Your task to perform on an android device: turn off javascript in the chrome app Image 0: 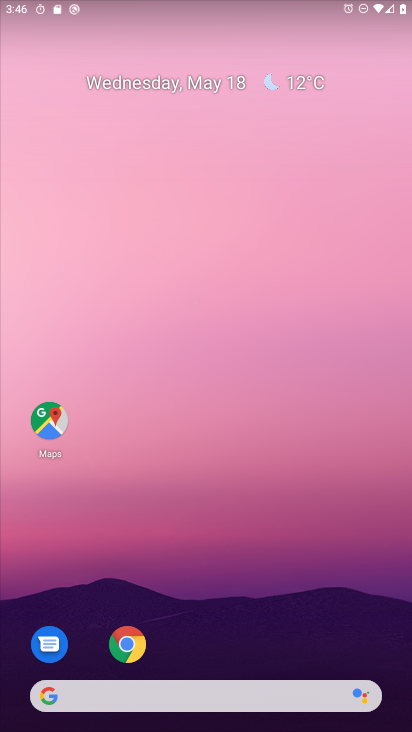
Step 0: click (123, 646)
Your task to perform on an android device: turn off javascript in the chrome app Image 1: 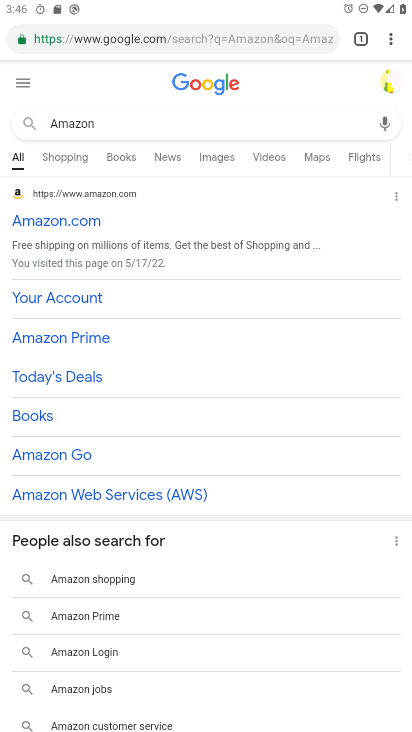
Step 1: click (390, 39)
Your task to perform on an android device: turn off javascript in the chrome app Image 2: 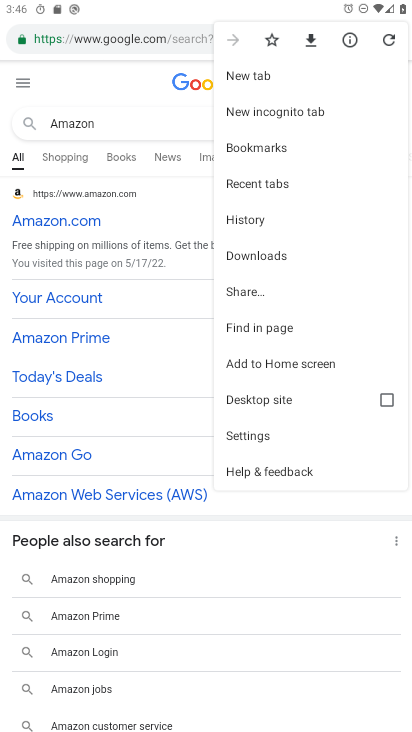
Step 2: click (249, 437)
Your task to perform on an android device: turn off javascript in the chrome app Image 3: 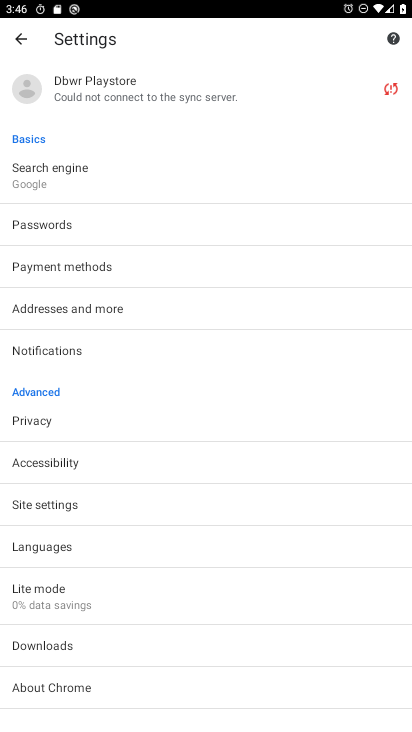
Step 3: click (35, 508)
Your task to perform on an android device: turn off javascript in the chrome app Image 4: 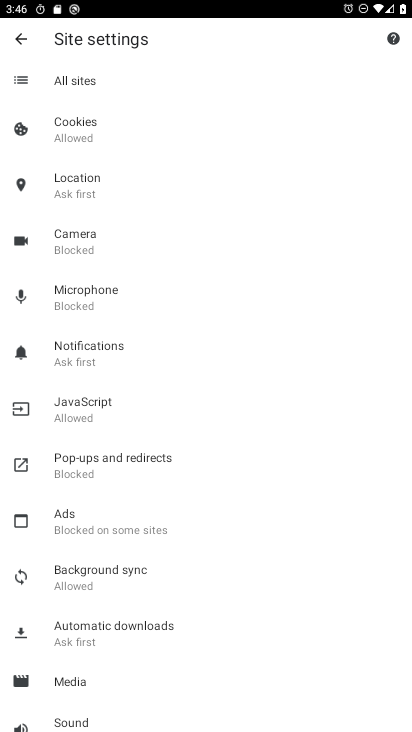
Step 4: click (90, 406)
Your task to perform on an android device: turn off javascript in the chrome app Image 5: 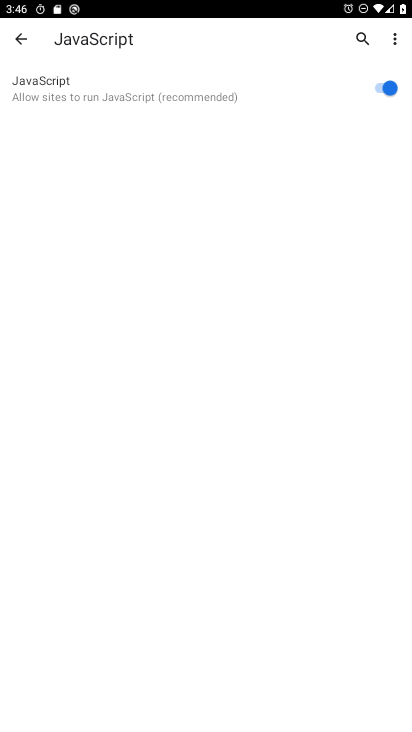
Step 5: click (380, 81)
Your task to perform on an android device: turn off javascript in the chrome app Image 6: 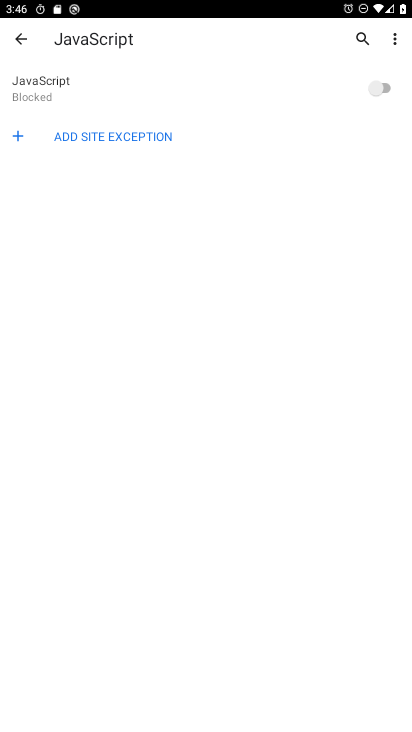
Step 6: task complete